Your task to perform on an android device: Search for Italian restaurants on Maps Image 0: 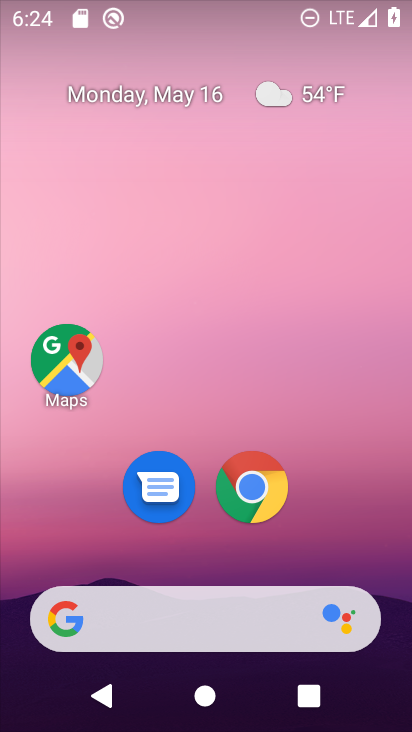
Step 0: click (54, 371)
Your task to perform on an android device: Search for Italian restaurants on Maps Image 1: 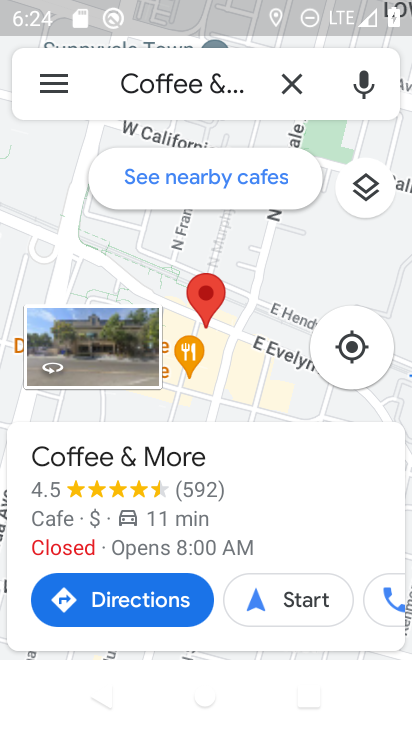
Step 1: click (295, 88)
Your task to perform on an android device: Search for Italian restaurants on Maps Image 2: 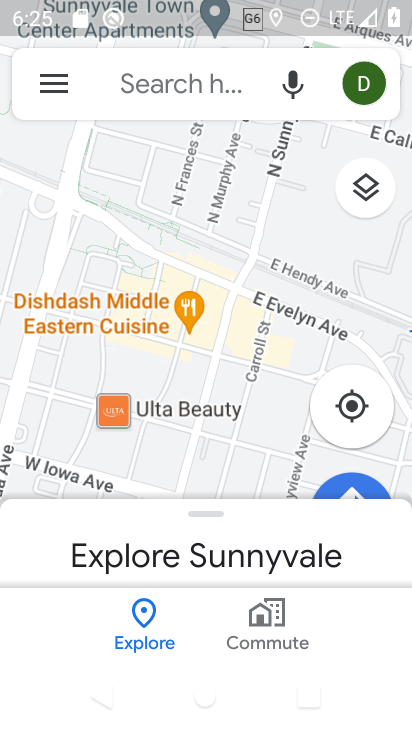
Step 2: click (165, 81)
Your task to perform on an android device: Search for Italian restaurants on Maps Image 3: 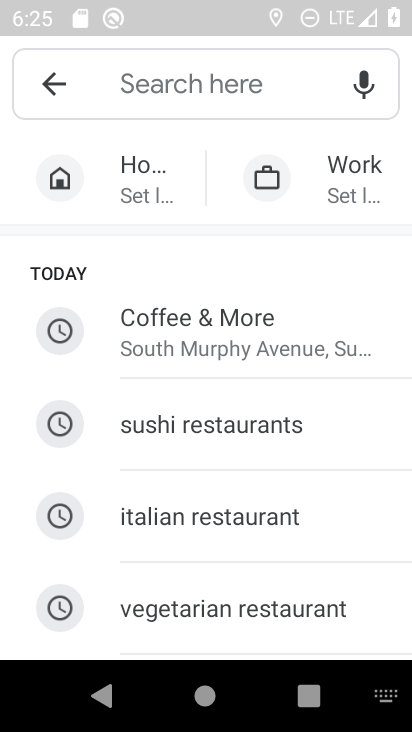
Step 3: type "italian restaurants"
Your task to perform on an android device: Search for Italian restaurants on Maps Image 4: 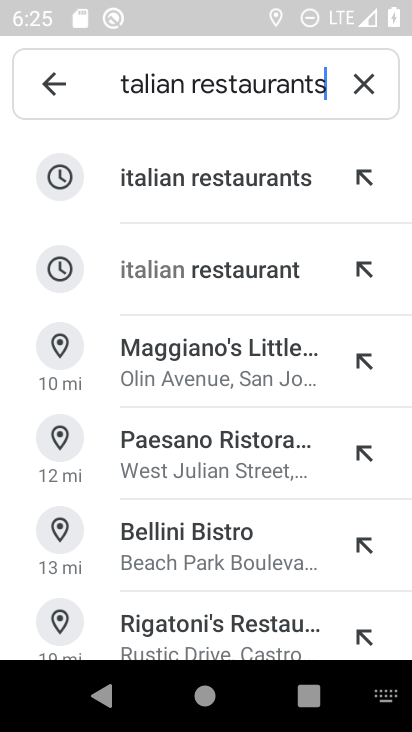
Step 4: click (291, 177)
Your task to perform on an android device: Search for Italian restaurants on Maps Image 5: 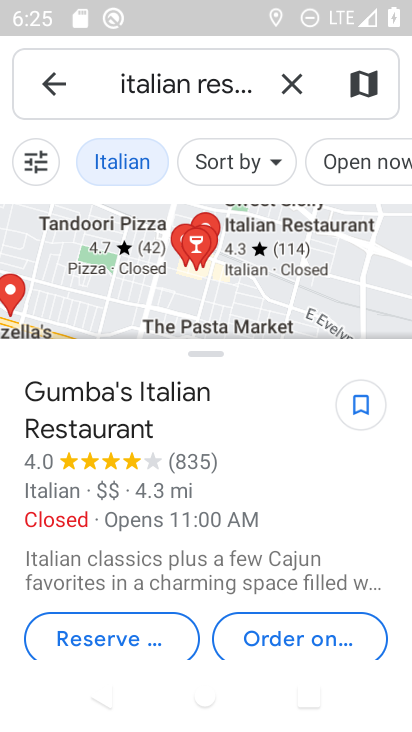
Step 5: task complete